Your task to perform on an android device: turn on airplane mode Image 0: 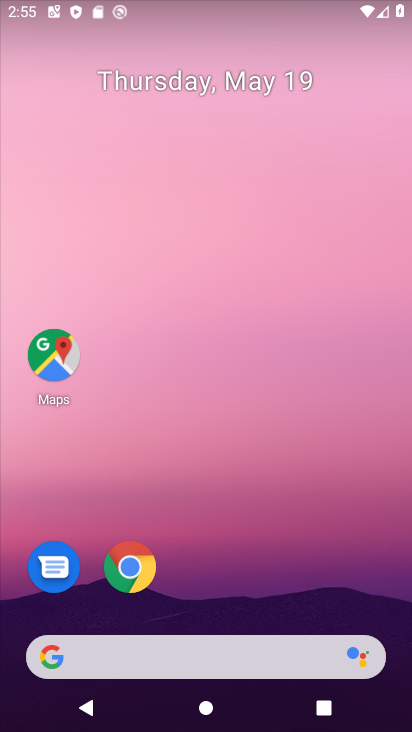
Step 0: drag from (221, 725) to (242, 140)
Your task to perform on an android device: turn on airplane mode Image 1: 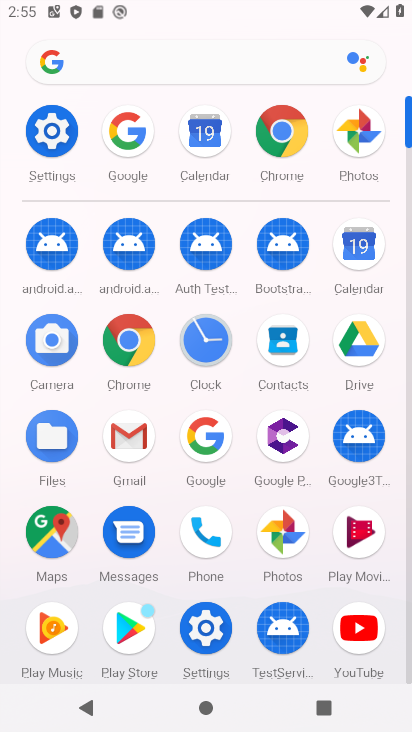
Step 1: click (50, 117)
Your task to perform on an android device: turn on airplane mode Image 2: 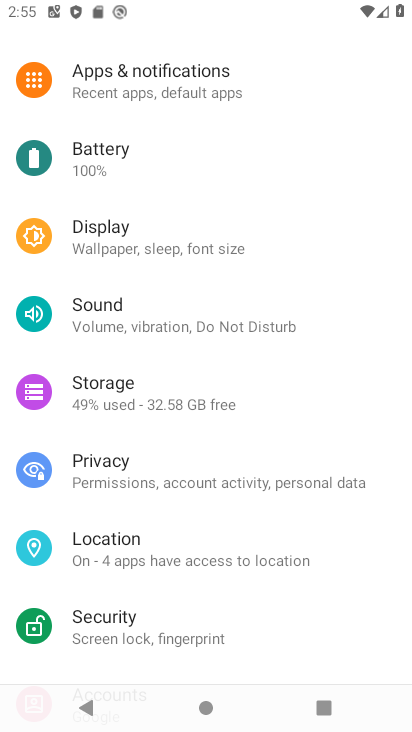
Step 2: drag from (266, 118) to (280, 476)
Your task to perform on an android device: turn on airplane mode Image 3: 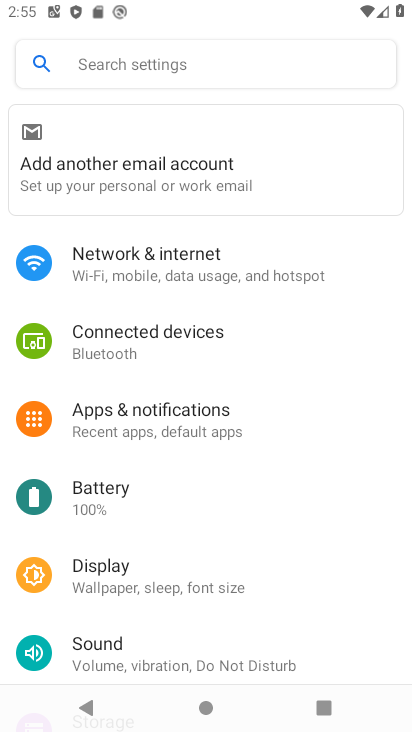
Step 3: click (124, 255)
Your task to perform on an android device: turn on airplane mode Image 4: 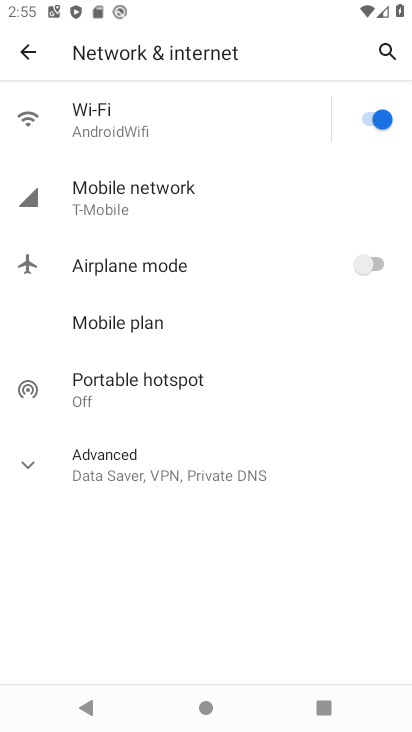
Step 4: click (376, 259)
Your task to perform on an android device: turn on airplane mode Image 5: 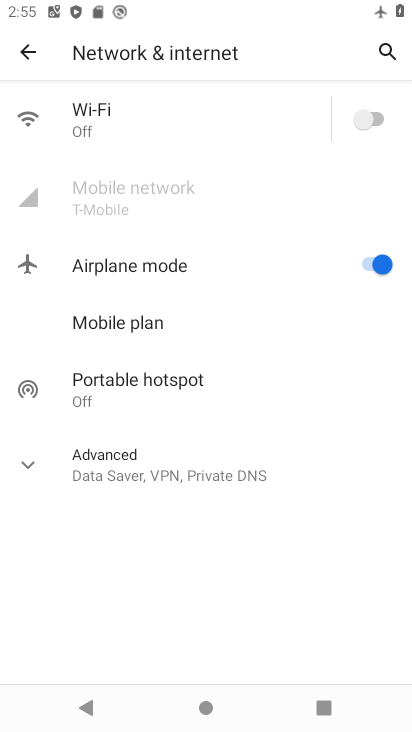
Step 5: task complete